Your task to perform on an android device: Go to display settings Image 0: 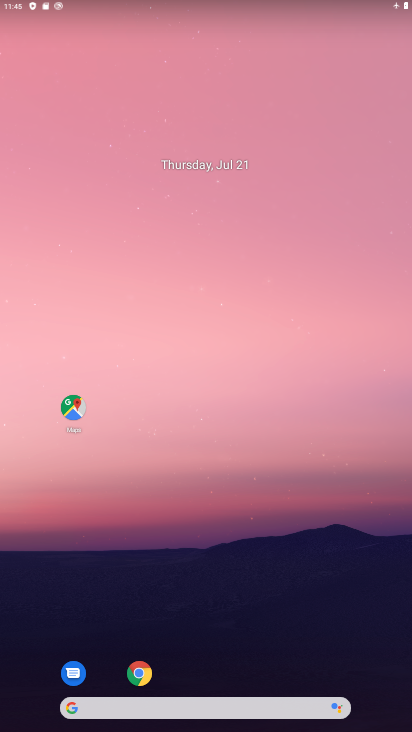
Step 0: drag from (226, 541) to (52, 4)
Your task to perform on an android device: Go to display settings Image 1: 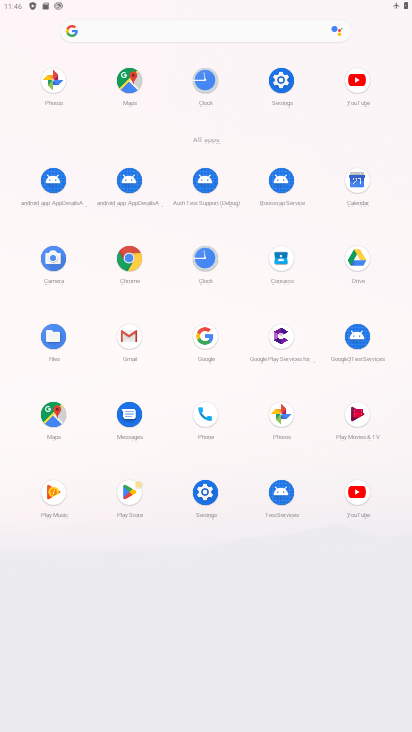
Step 1: click (195, 485)
Your task to perform on an android device: Go to display settings Image 2: 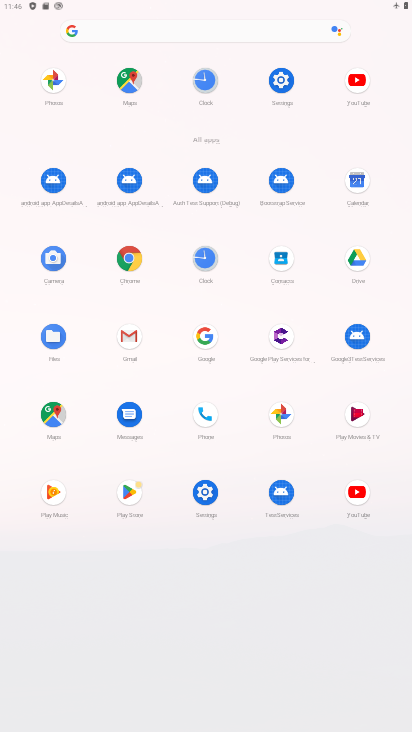
Step 2: click (199, 492)
Your task to perform on an android device: Go to display settings Image 3: 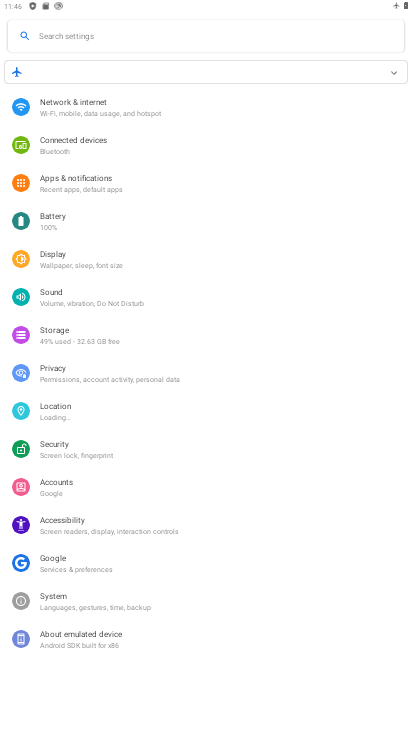
Step 3: click (91, 260)
Your task to perform on an android device: Go to display settings Image 4: 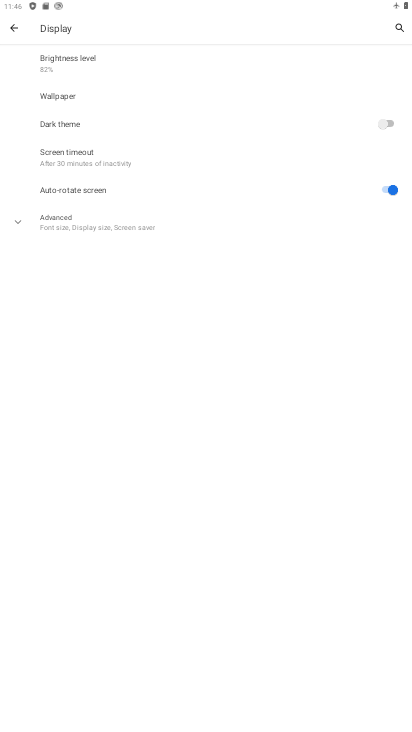
Step 4: task complete